Your task to perform on an android device: open sync settings in chrome Image 0: 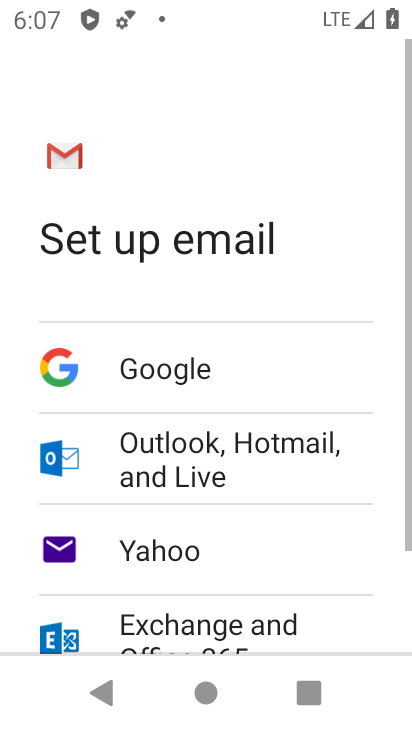
Step 0: press home button
Your task to perform on an android device: open sync settings in chrome Image 1: 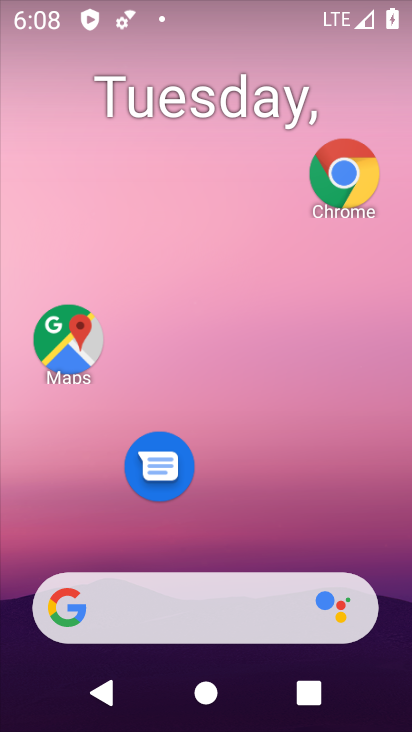
Step 1: click (339, 190)
Your task to perform on an android device: open sync settings in chrome Image 2: 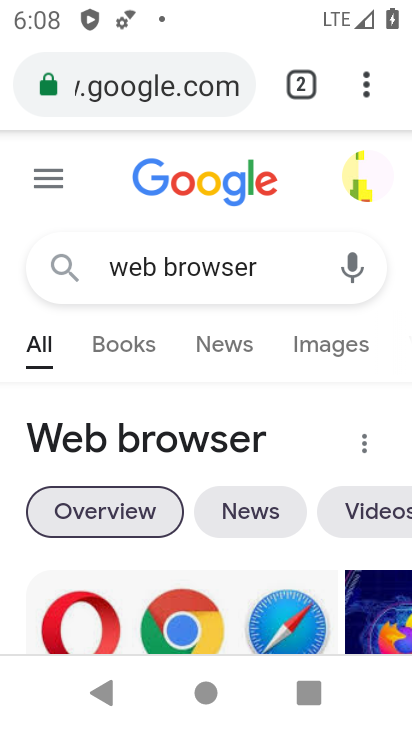
Step 2: drag from (353, 77) to (112, 501)
Your task to perform on an android device: open sync settings in chrome Image 3: 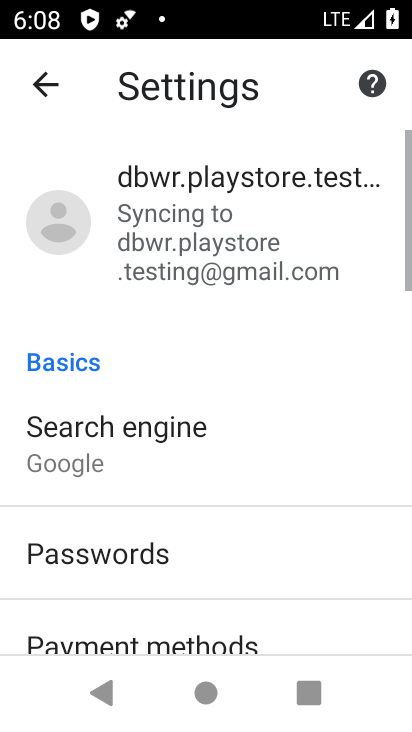
Step 3: click (129, 251)
Your task to perform on an android device: open sync settings in chrome Image 4: 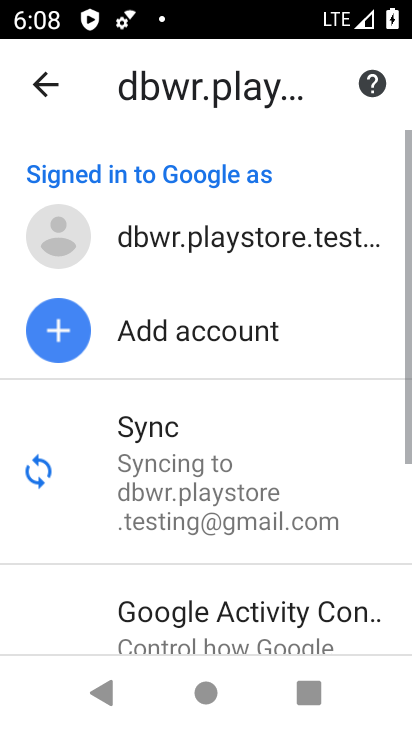
Step 4: drag from (207, 551) to (162, 462)
Your task to perform on an android device: open sync settings in chrome Image 5: 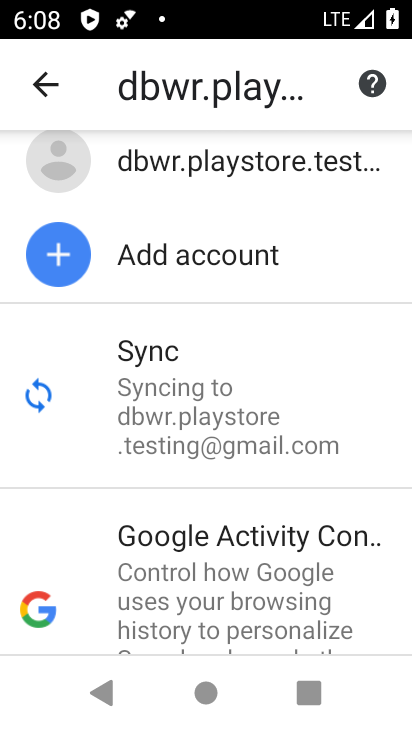
Step 5: click (133, 423)
Your task to perform on an android device: open sync settings in chrome Image 6: 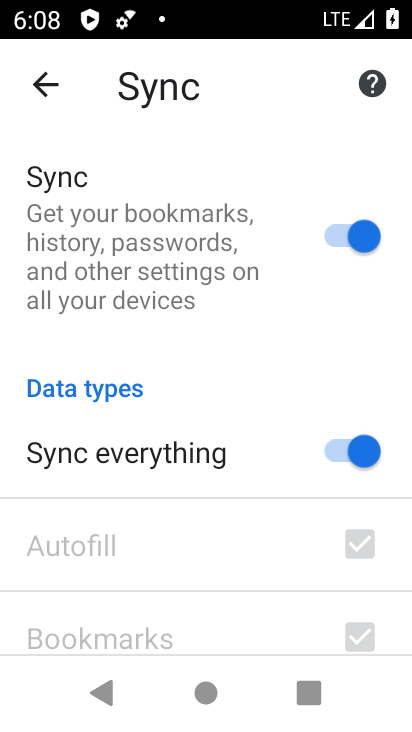
Step 6: task complete